Your task to perform on an android device: Go to sound settings Image 0: 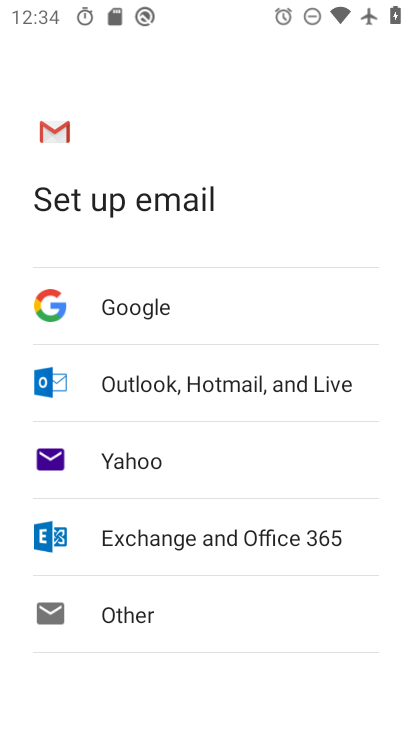
Step 0: press home button
Your task to perform on an android device: Go to sound settings Image 1: 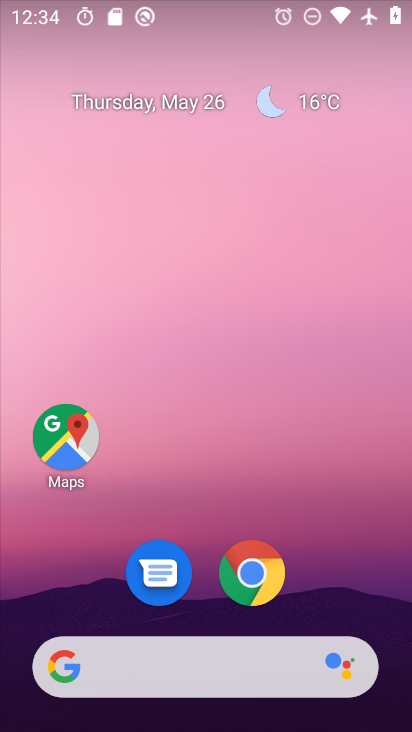
Step 1: drag from (353, 612) to (248, 14)
Your task to perform on an android device: Go to sound settings Image 2: 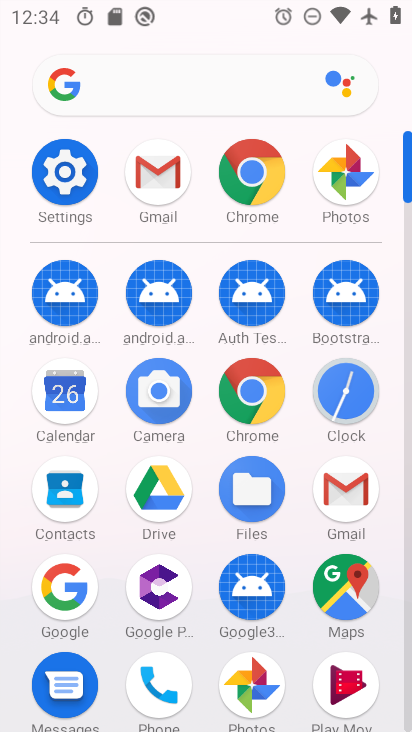
Step 2: click (52, 172)
Your task to perform on an android device: Go to sound settings Image 3: 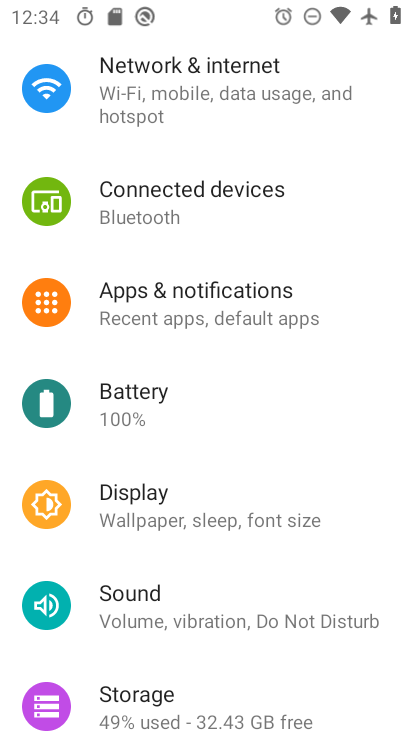
Step 3: click (134, 599)
Your task to perform on an android device: Go to sound settings Image 4: 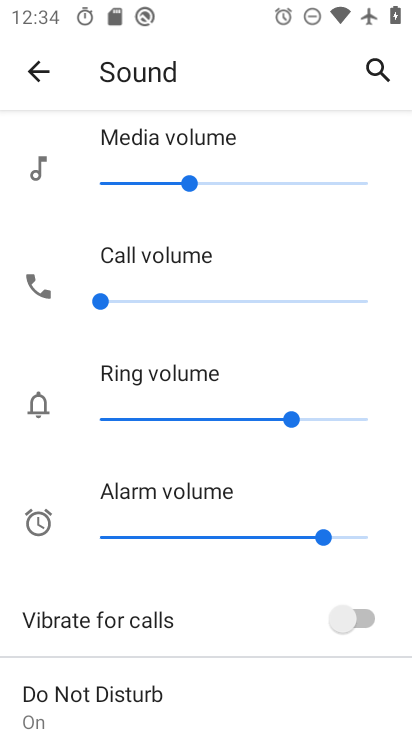
Step 4: task complete